Your task to perform on an android device: change the clock display to analog Image 0: 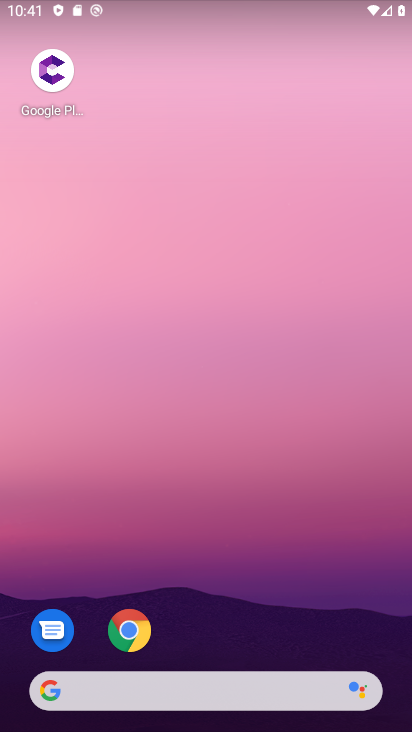
Step 0: drag from (184, 652) to (342, 36)
Your task to perform on an android device: change the clock display to analog Image 1: 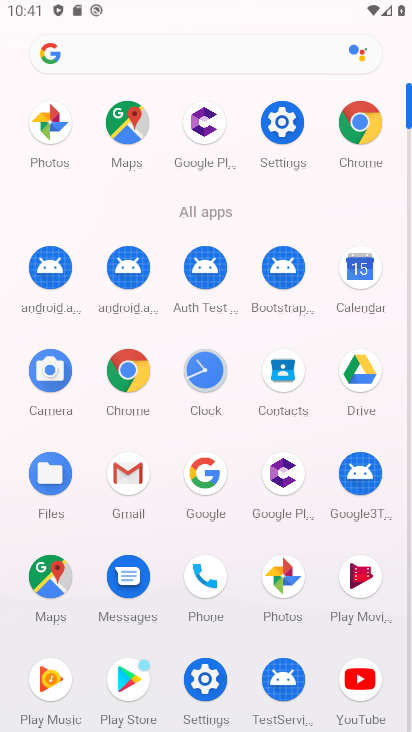
Step 1: click (207, 371)
Your task to perform on an android device: change the clock display to analog Image 2: 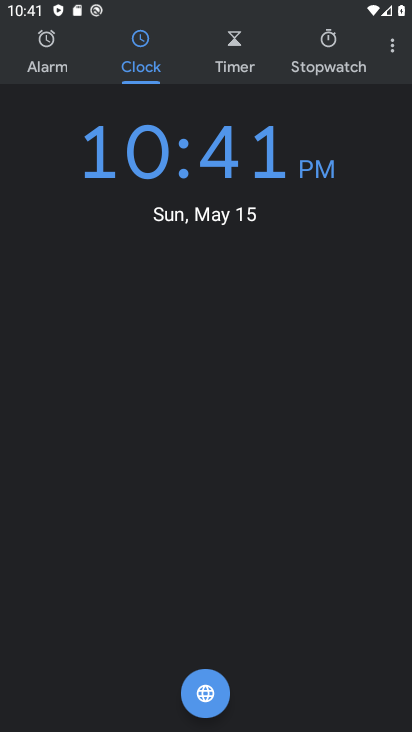
Step 2: click (388, 44)
Your task to perform on an android device: change the clock display to analog Image 3: 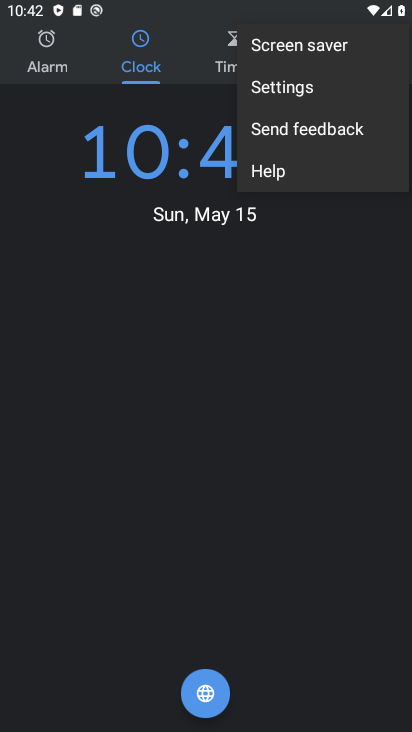
Step 3: click (334, 88)
Your task to perform on an android device: change the clock display to analog Image 4: 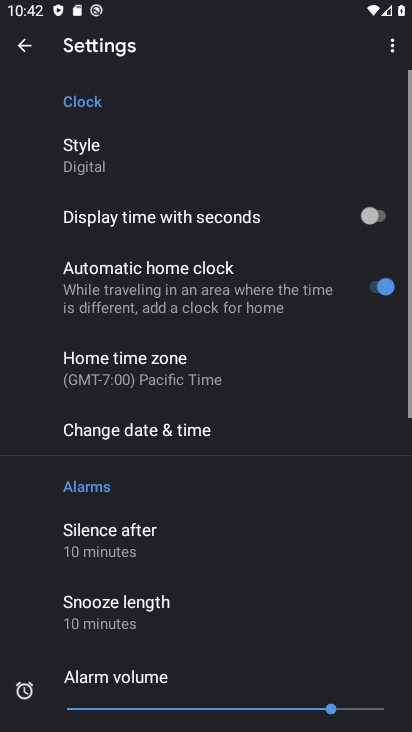
Step 4: click (124, 145)
Your task to perform on an android device: change the clock display to analog Image 5: 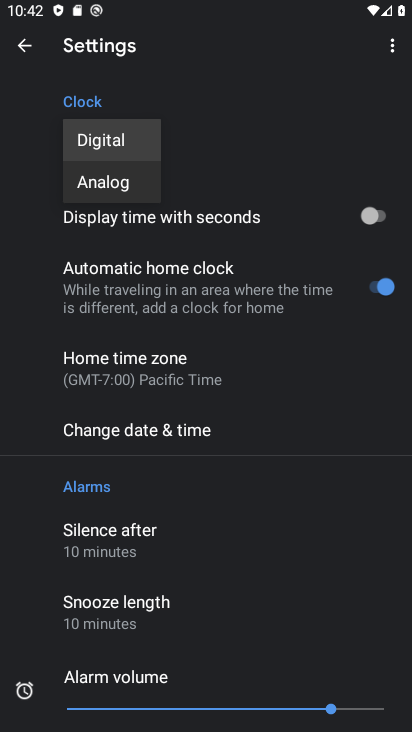
Step 5: click (92, 188)
Your task to perform on an android device: change the clock display to analog Image 6: 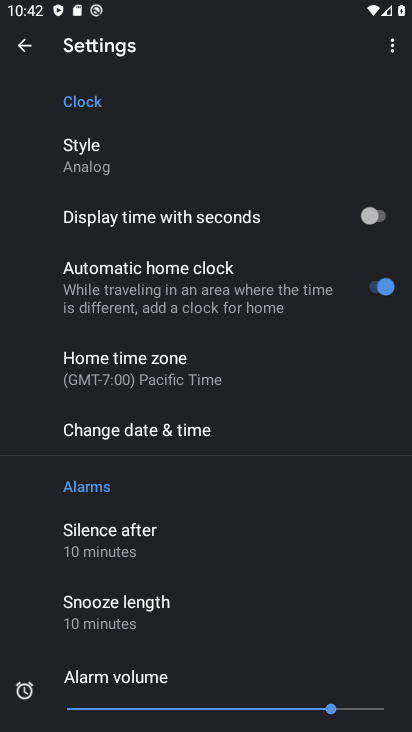
Step 6: task complete